Your task to perform on an android device: Search for Mexican restaurants on Maps Image 0: 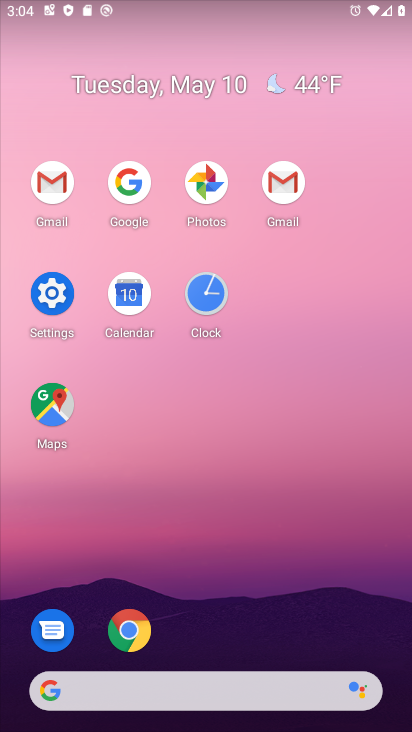
Step 0: click (53, 404)
Your task to perform on an android device: Search for Mexican restaurants on Maps Image 1: 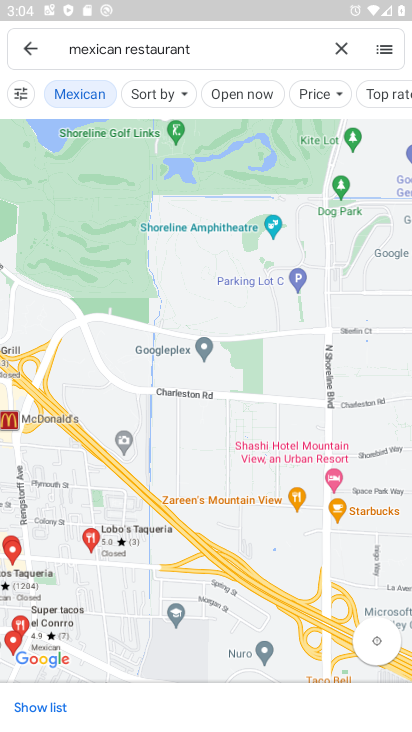
Step 1: task complete